Your task to perform on an android device: set default search engine in the chrome app Image 0: 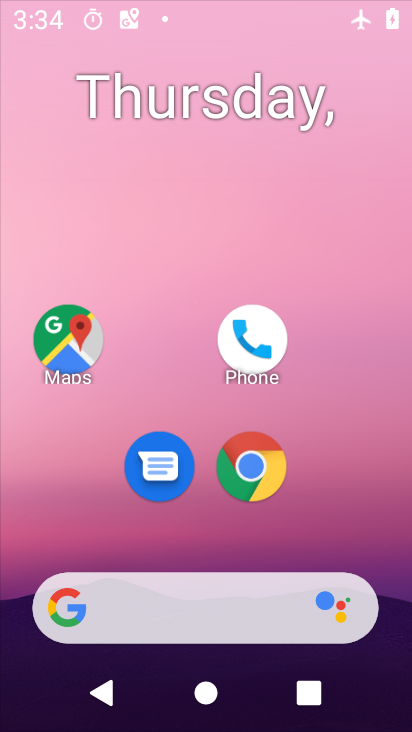
Step 0: drag from (212, 499) to (202, 128)
Your task to perform on an android device: set default search engine in the chrome app Image 1: 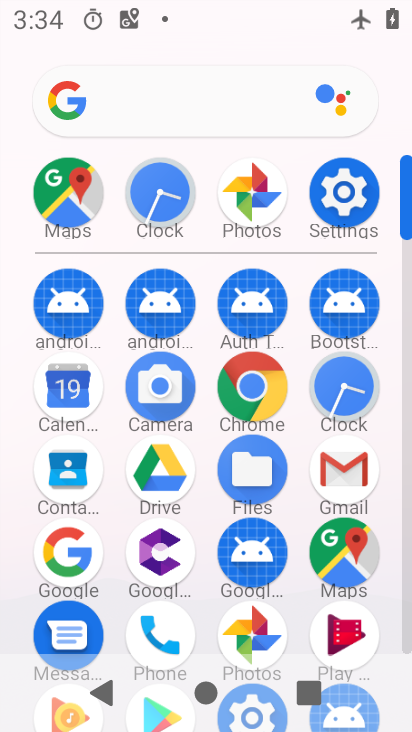
Step 1: click (258, 373)
Your task to perform on an android device: set default search engine in the chrome app Image 2: 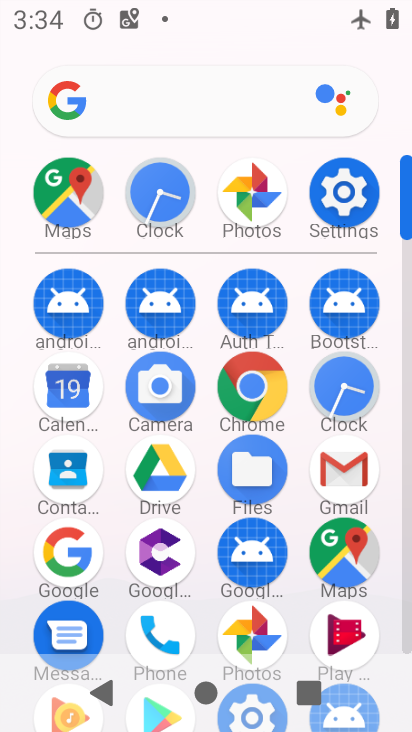
Step 2: click (258, 373)
Your task to perform on an android device: set default search engine in the chrome app Image 3: 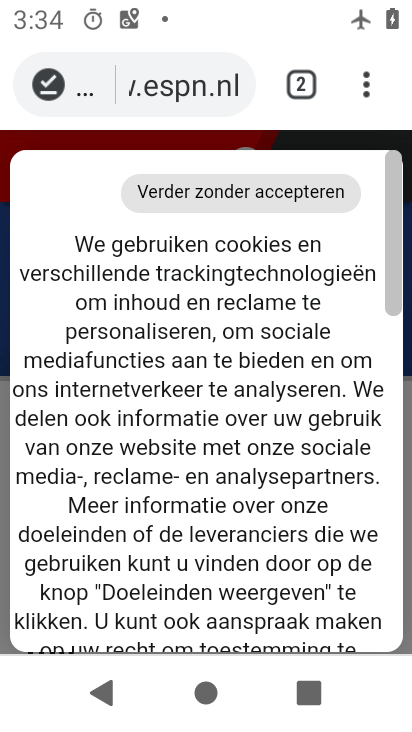
Step 3: click (395, 87)
Your task to perform on an android device: set default search engine in the chrome app Image 4: 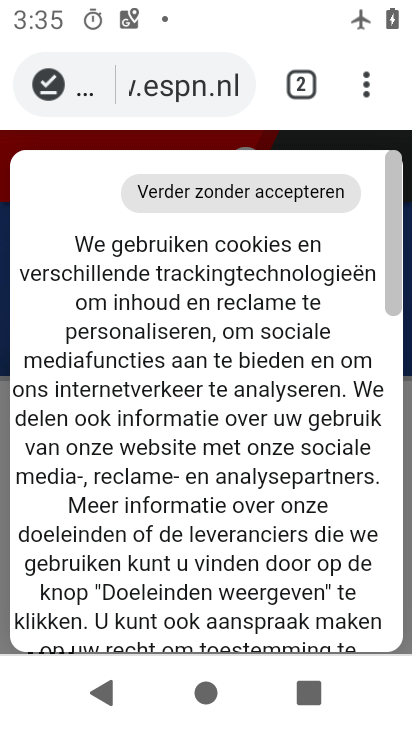
Step 4: click (371, 83)
Your task to perform on an android device: set default search engine in the chrome app Image 5: 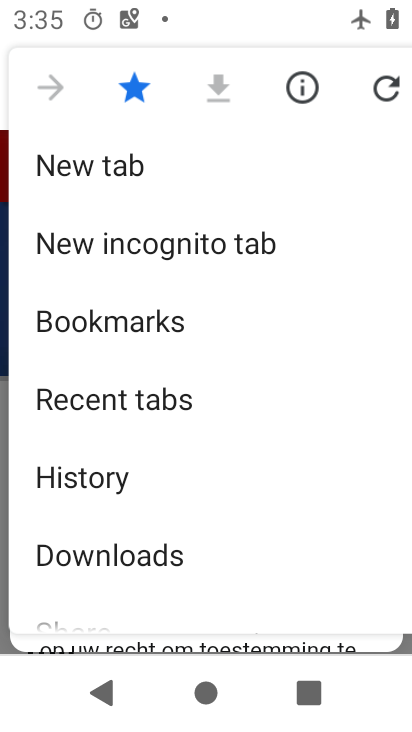
Step 5: drag from (191, 488) to (174, 194)
Your task to perform on an android device: set default search engine in the chrome app Image 6: 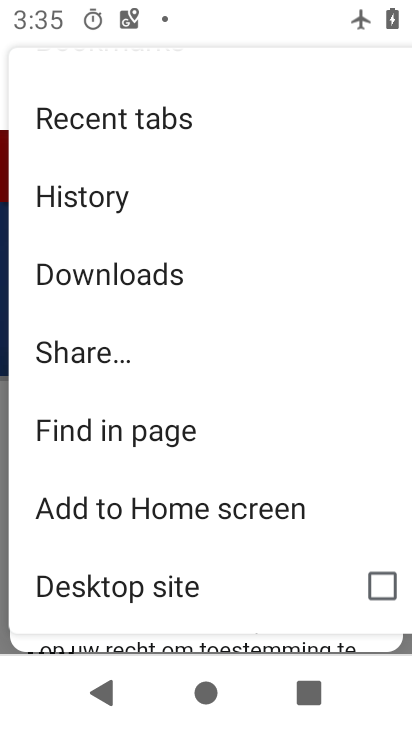
Step 6: drag from (151, 552) to (179, 183)
Your task to perform on an android device: set default search engine in the chrome app Image 7: 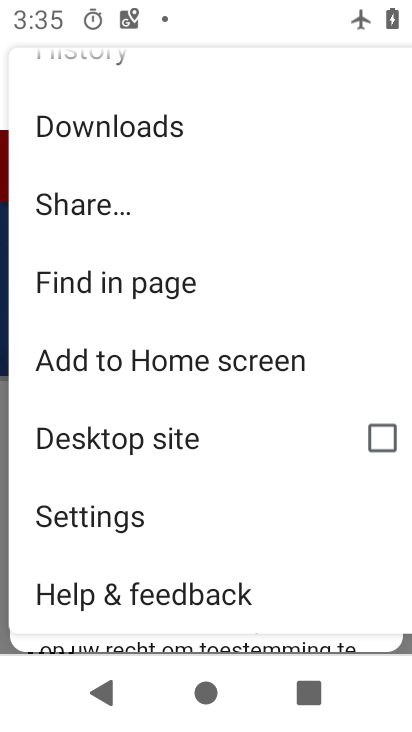
Step 7: click (134, 517)
Your task to perform on an android device: set default search engine in the chrome app Image 8: 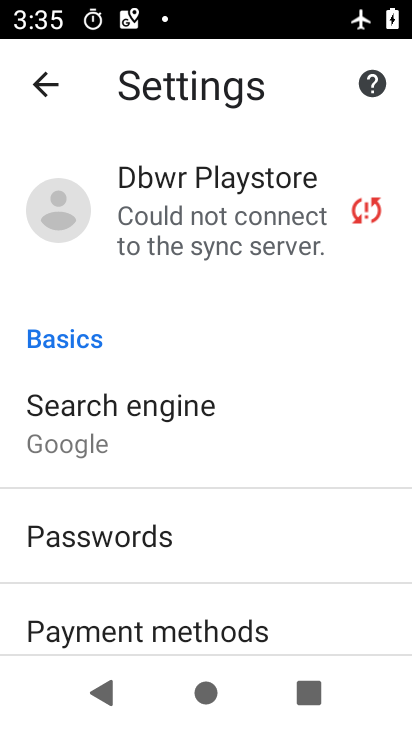
Step 8: click (128, 422)
Your task to perform on an android device: set default search engine in the chrome app Image 9: 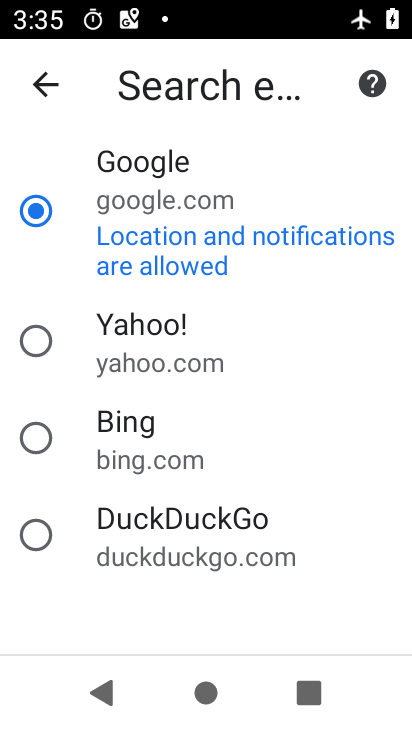
Step 9: click (181, 167)
Your task to perform on an android device: set default search engine in the chrome app Image 10: 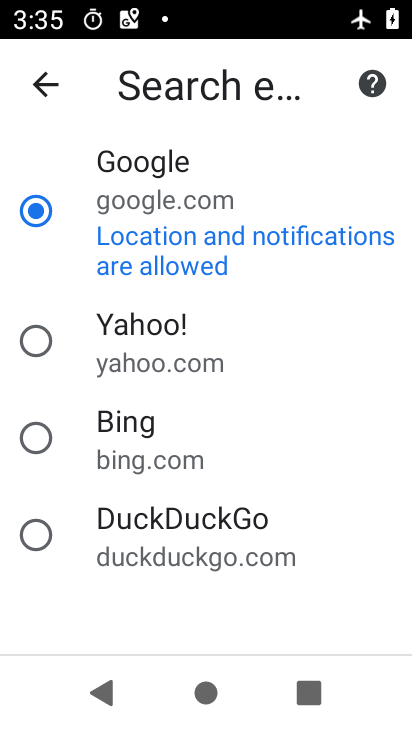
Step 10: click (116, 343)
Your task to perform on an android device: set default search engine in the chrome app Image 11: 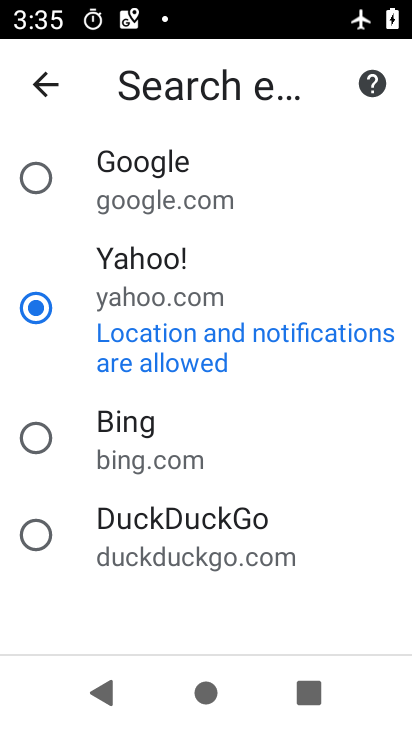
Step 11: task complete